Your task to perform on an android device: clear history in the chrome app Image 0: 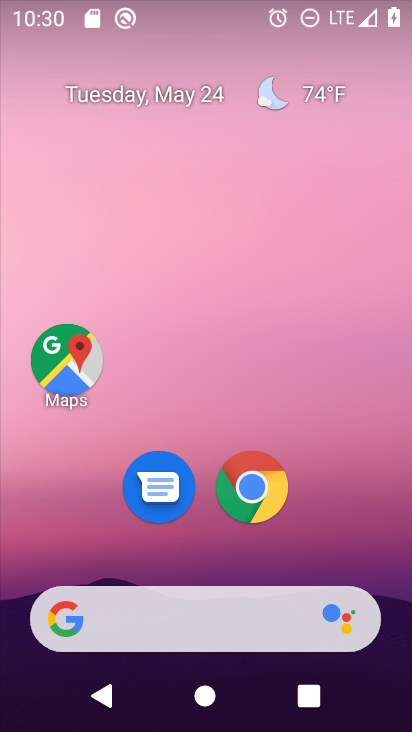
Step 0: click (260, 491)
Your task to perform on an android device: clear history in the chrome app Image 1: 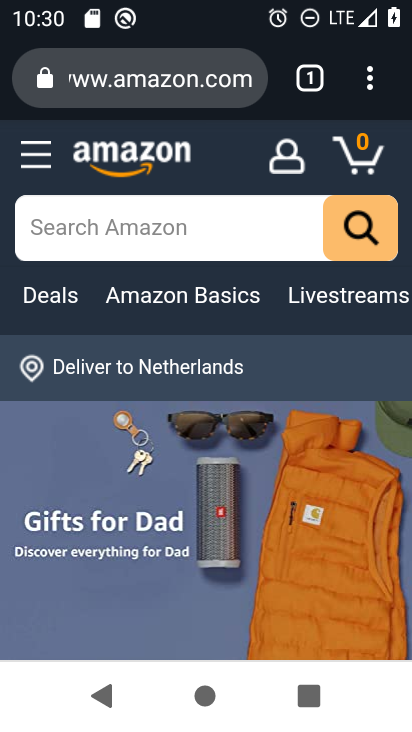
Step 1: click (369, 83)
Your task to perform on an android device: clear history in the chrome app Image 2: 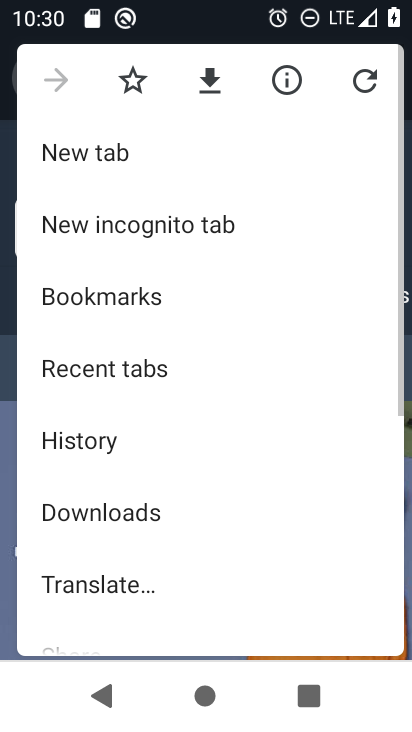
Step 2: drag from (238, 472) to (175, 9)
Your task to perform on an android device: clear history in the chrome app Image 3: 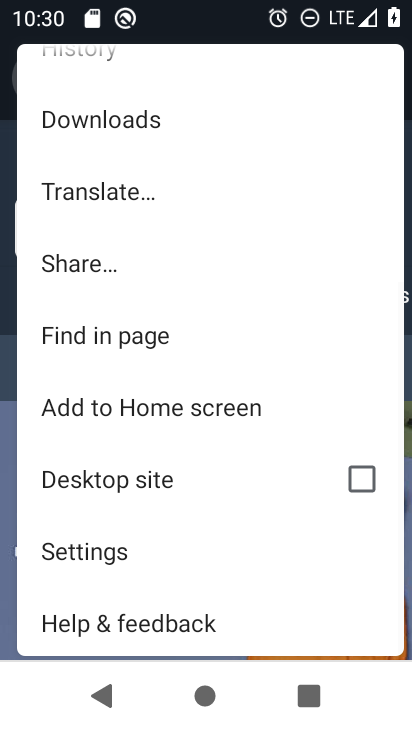
Step 3: click (77, 554)
Your task to perform on an android device: clear history in the chrome app Image 4: 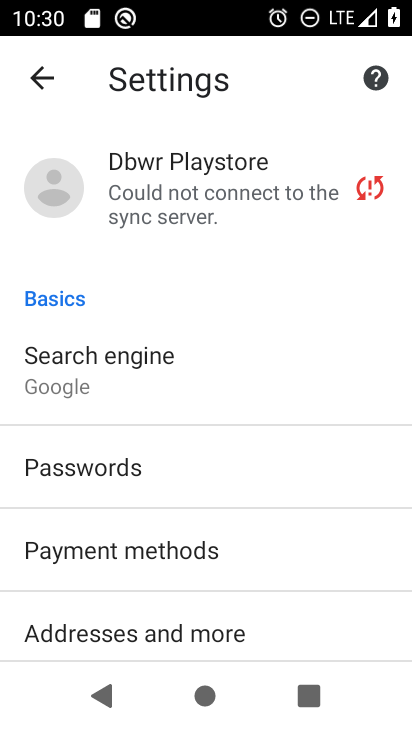
Step 4: drag from (247, 552) to (224, 164)
Your task to perform on an android device: clear history in the chrome app Image 5: 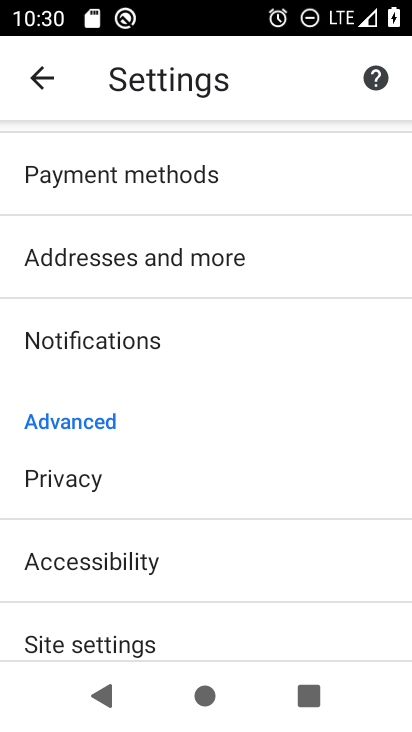
Step 5: click (52, 479)
Your task to perform on an android device: clear history in the chrome app Image 6: 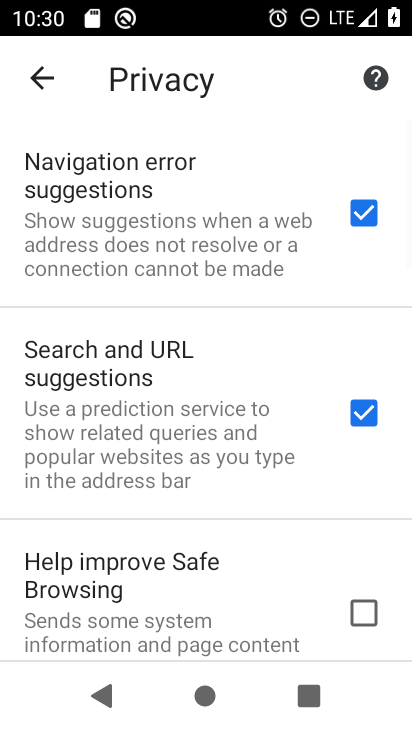
Step 6: drag from (138, 594) to (144, 48)
Your task to perform on an android device: clear history in the chrome app Image 7: 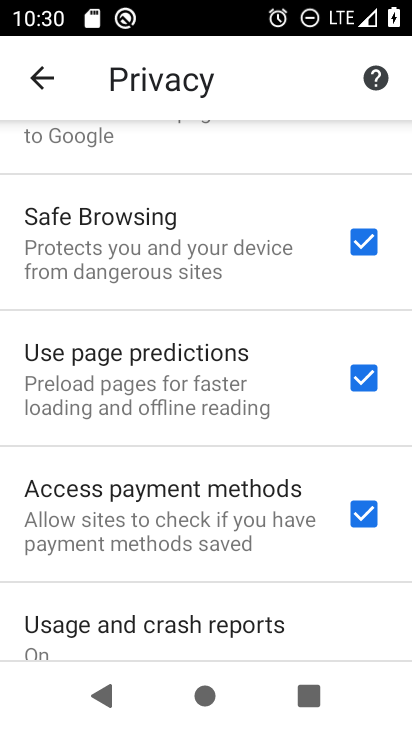
Step 7: drag from (151, 483) to (149, 114)
Your task to perform on an android device: clear history in the chrome app Image 8: 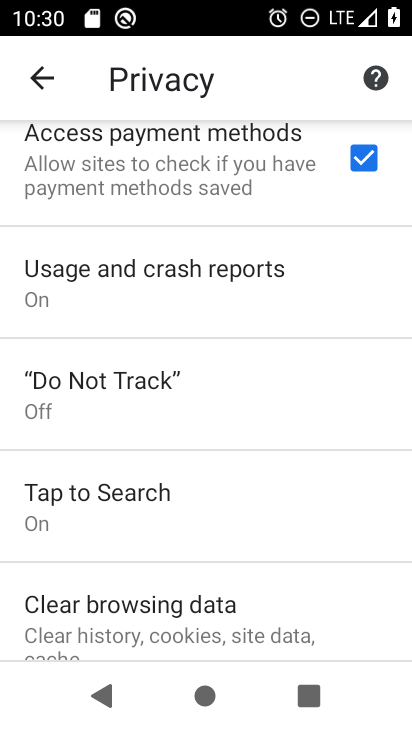
Step 8: click (109, 620)
Your task to perform on an android device: clear history in the chrome app Image 9: 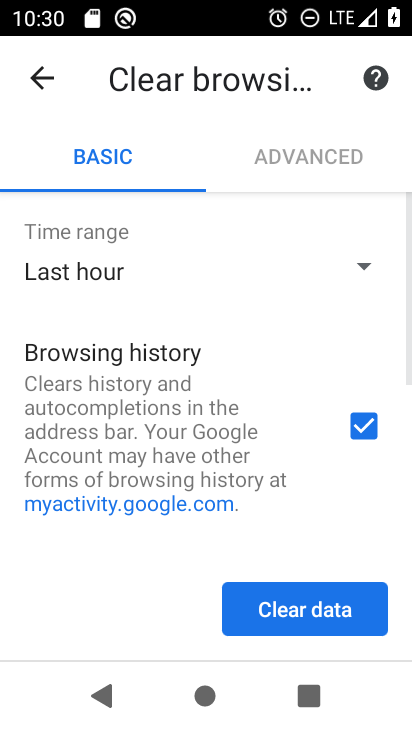
Step 9: drag from (115, 450) to (117, 139)
Your task to perform on an android device: clear history in the chrome app Image 10: 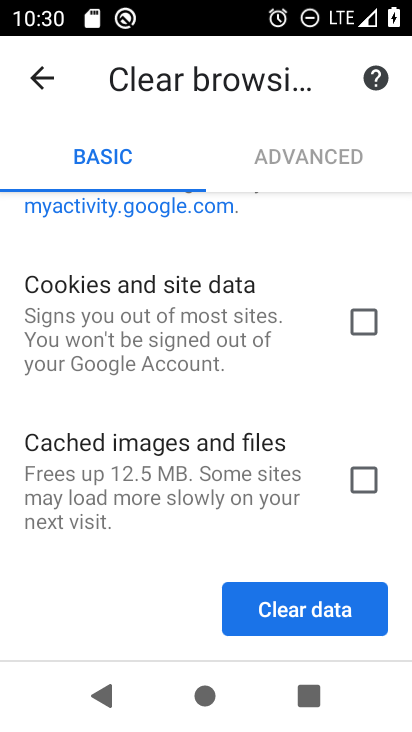
Step 10: click (302, 605)
Your task to perform on an android device: clear history in the chrome app Image 11: 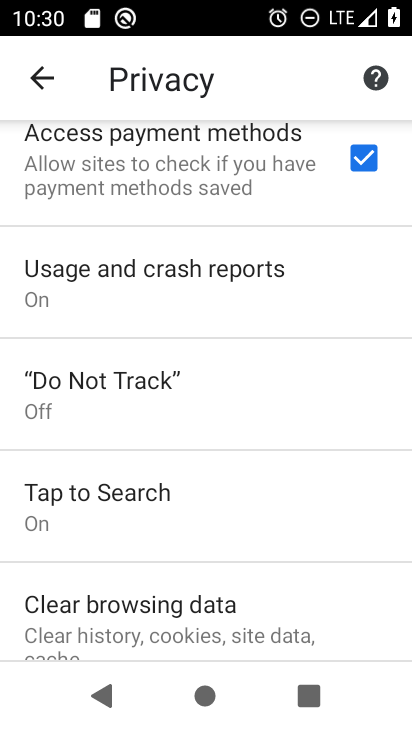
Step 11: task complete